Your task to perform on an android device: turn off picture-in-picture Image 0: 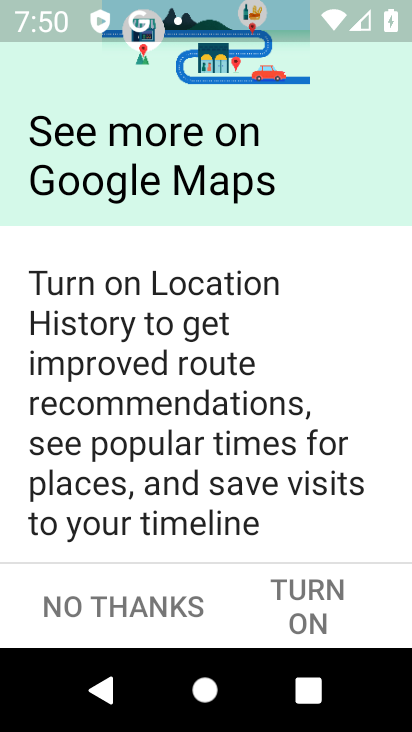
Step 0: press home button
Your task to perform on an android device: turn off picture-in-picture Image 1: 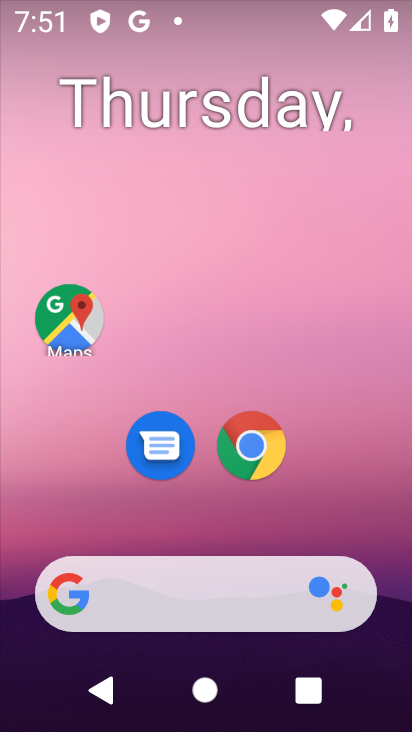
Step 1: drag from (335, 515) to (374, 242)
Your task to perform on an android device: turn off picture-in-picture Image 2: 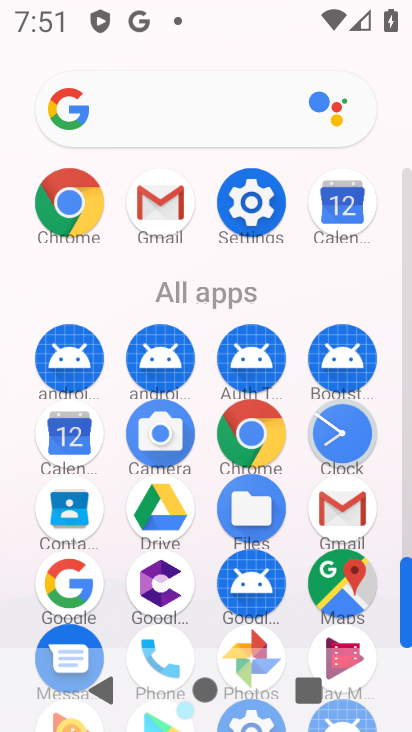
Step 2: click (276, 202)
Your task to perform on an android device: turn off picture-in-picture Image 3: 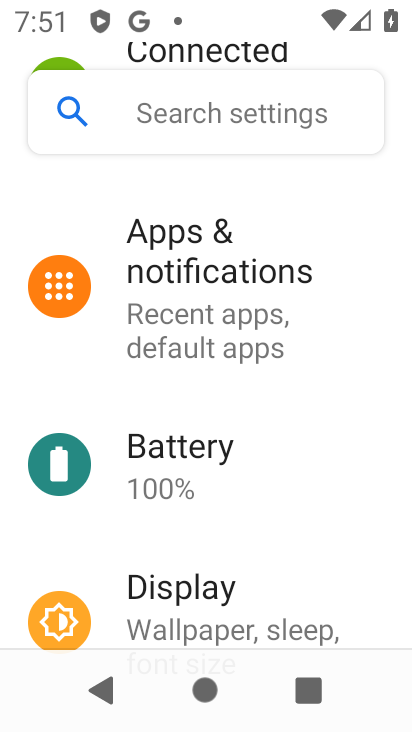
Step 3: click (294, 295)
Your task to perform on an android device: turn off picture-in-picture Image 4: 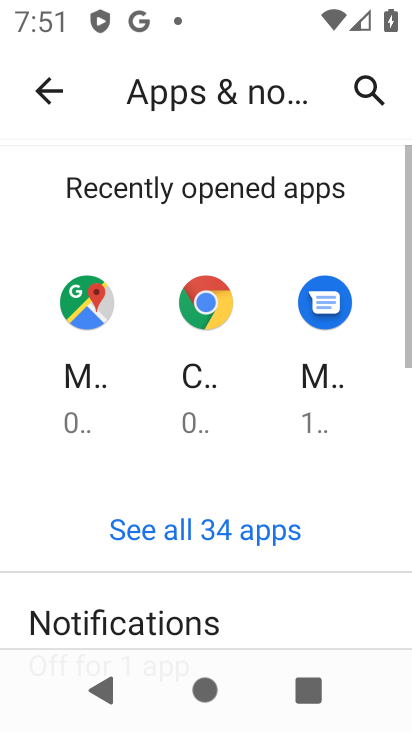
Step 4: drag from (305, 606) to (340, 235)
Your task to perform on an android device: turn off picture-in-picture Image 5: 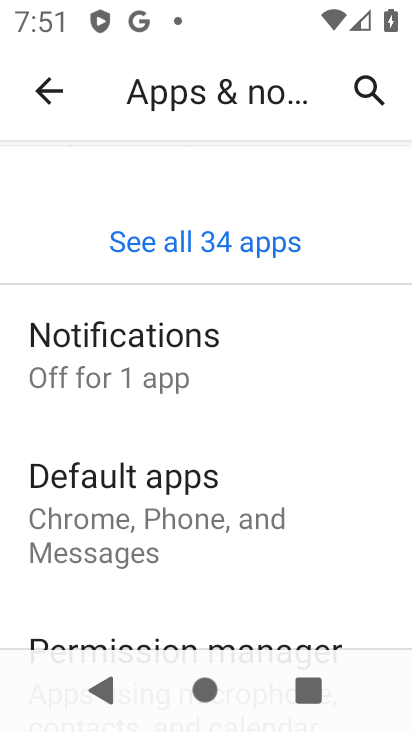
Step 5: drag from (301, 584) to (351, 196)
Your task to perform on an android device: turn off picture-in-picture Image 6: 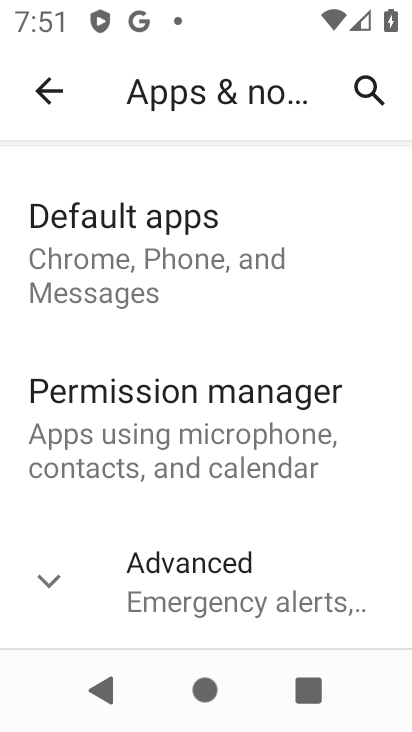
Step 6: click (207, 588)
Your task to perform on an android device: turn off picture-in-picture Image 7: 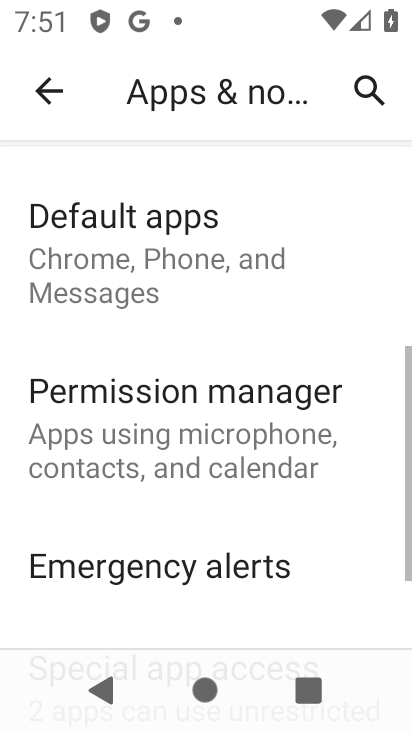
Step 7: drag from (288, 588) to (302, 203)
Your task to perform on an android device: turn off picture-in-picture Image 8: 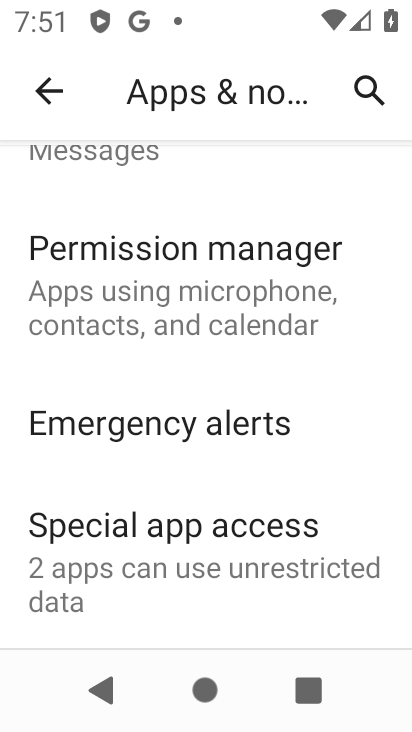
Step 8: click (241, 582)
Your task to perform on an android device: turn off picture-in-picture Image 9: 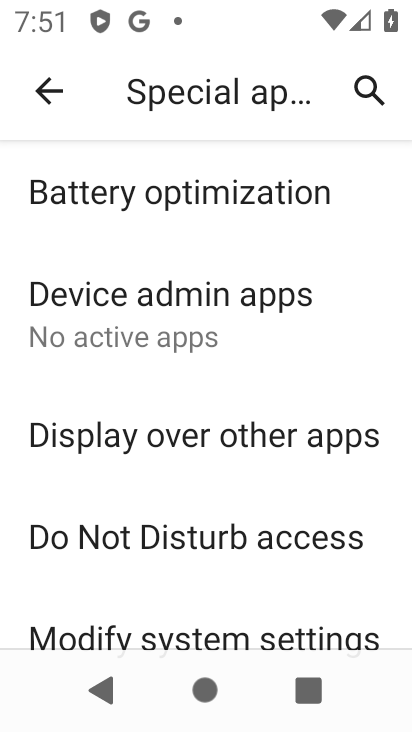
Step 9: drag from (246, 579) to (303, 266)
Your task to perform on an android device: turn off picture-in-picture Image 10: 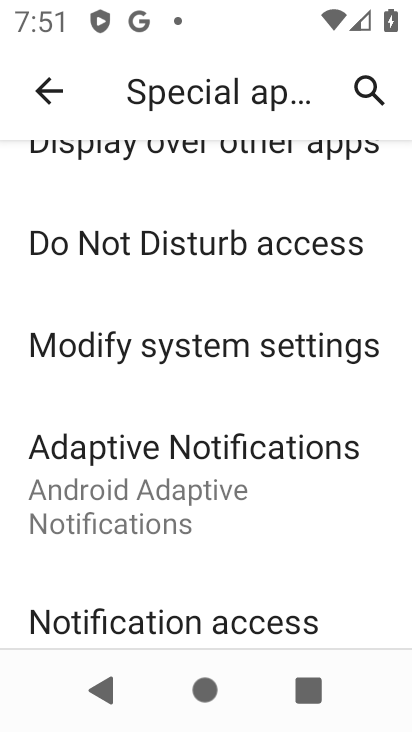
Step 10: drag from (263, 529) to (336, 194)
Your task to perform on an android device: turn off picture-in-picture Image 11: 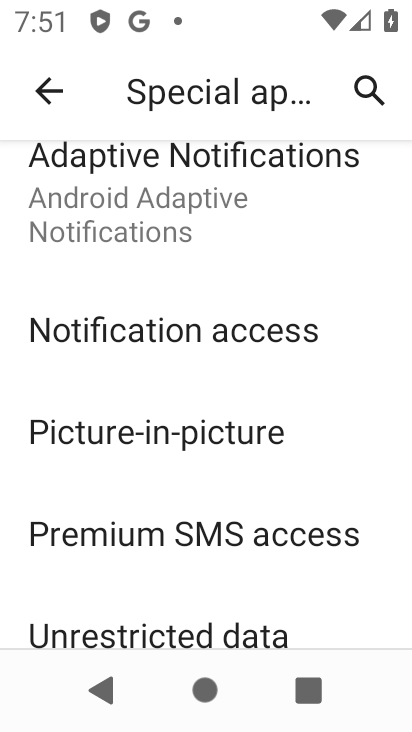
Step 11: click (247, 467)
Your task to perform on an android device: turn off picture-in-picture Image 12: 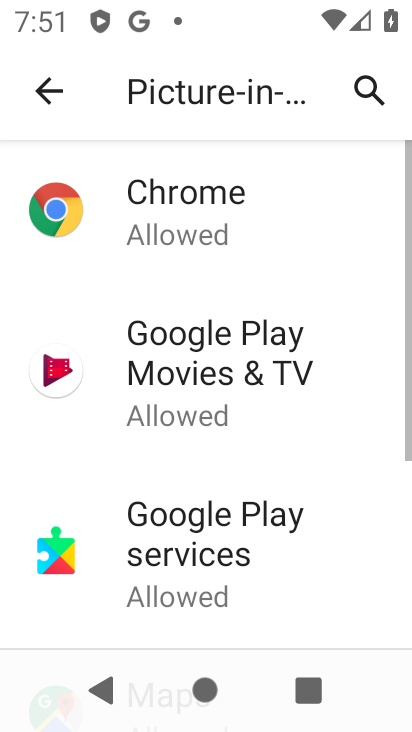
Step 12: click (239, 218)
Your task to perform on an android device: turn off picture-in-picture Image 13: 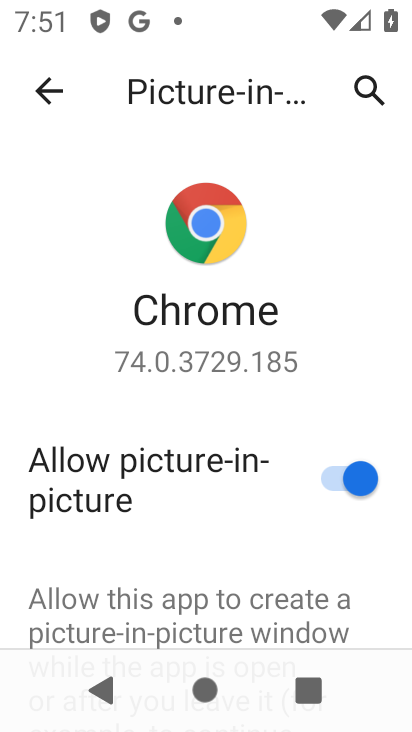
Step 13: click (329, 482)
Your task to perform on an android device: turn off picture-in-picture Image 14: 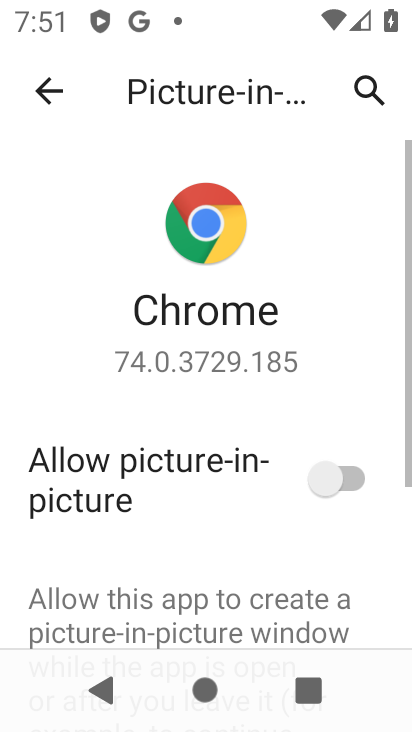
Step 14: task complete